Your task to perform on an android device: See recent photos Image 0: 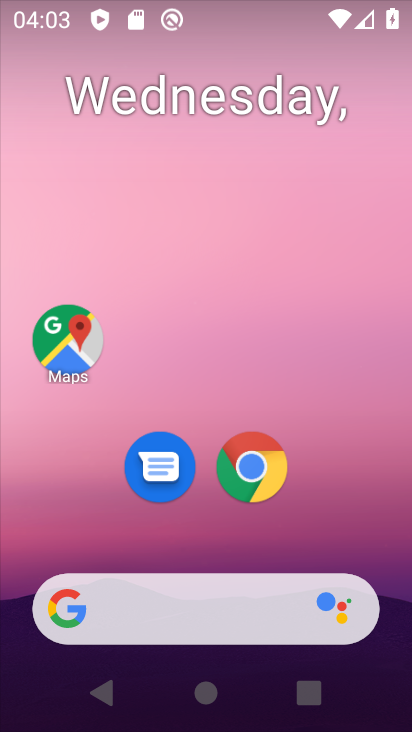
Step 0: drag from (394, 615) to (305, 116)
Your task to perform on an android device: See recent photos Image 1: 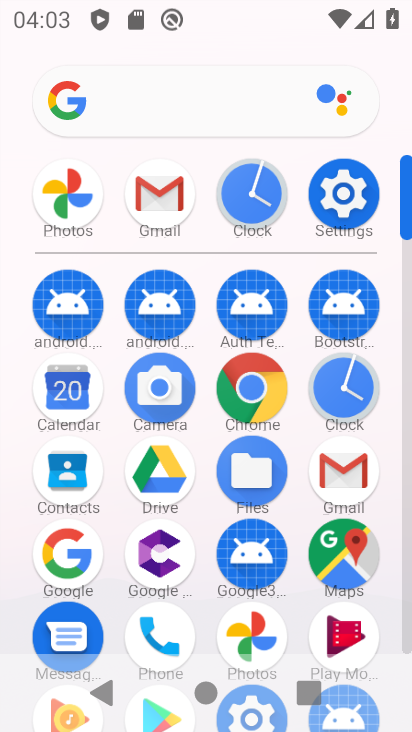
Step 1: click (406, 628)
Your task to perform on an android device: See recent photos Image 2: 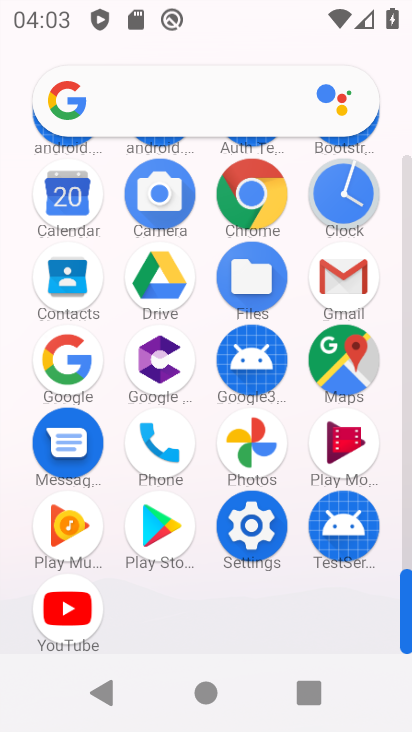
Step 2: click (247, 441)
Your task to perform on an android device: See recent photos Image 3: 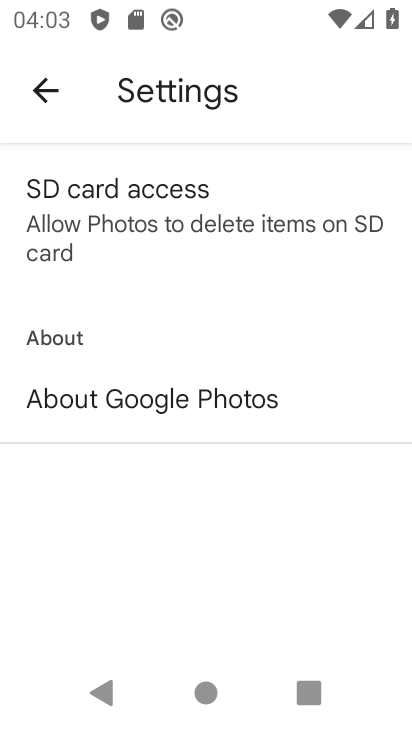
Step 3: press back button
Your task to perform on an android device: See recent photos Image 4: 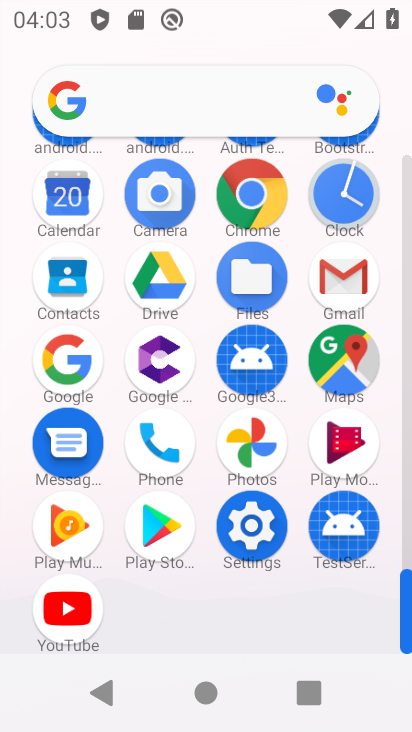
Step 4: click (252, 446)
Your task to perform on an android device: See recent photos Image 5: 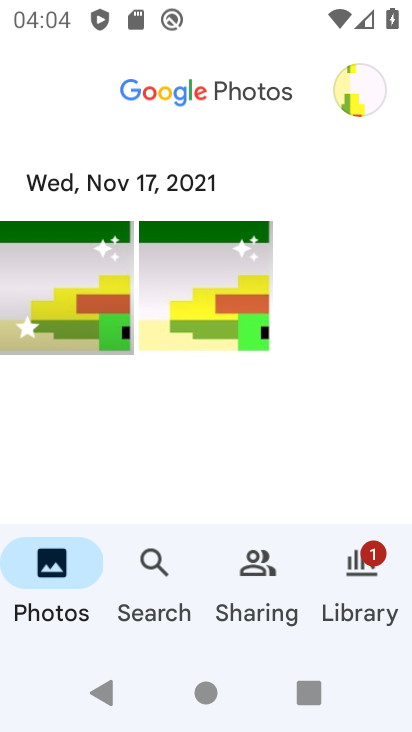
Step 5: task complete